Your task to perform on an android device: Go to Reddit.com Image 0: 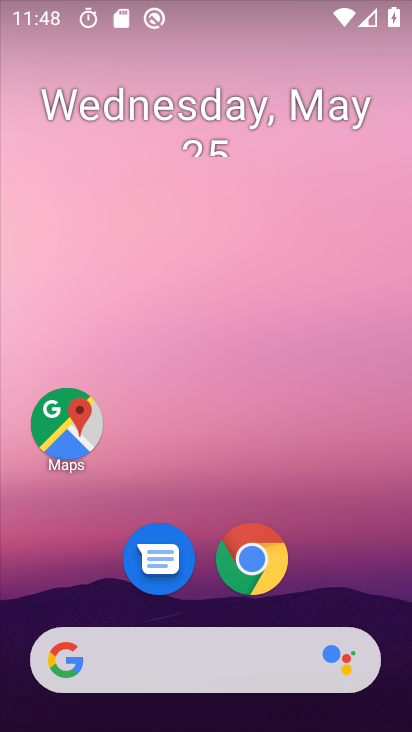
Step 0: drag from (366, 581) to (310, 136)
Your task to perform on an android device: Go to Reddit.com Image 1: 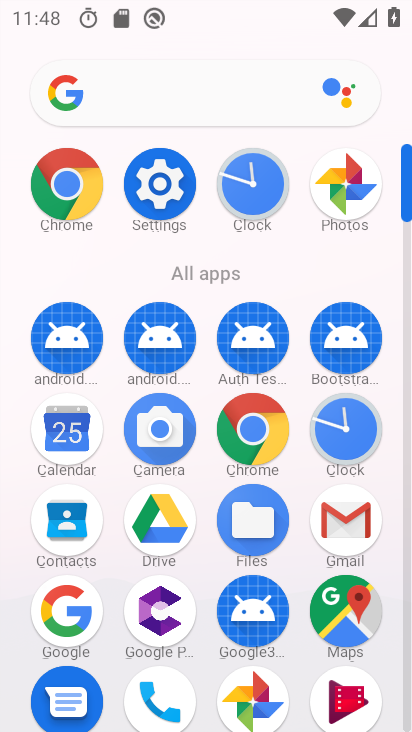
Step 1: click (258, 452)
Your task to perform on an android device: Go to Reddit.com Image 2: 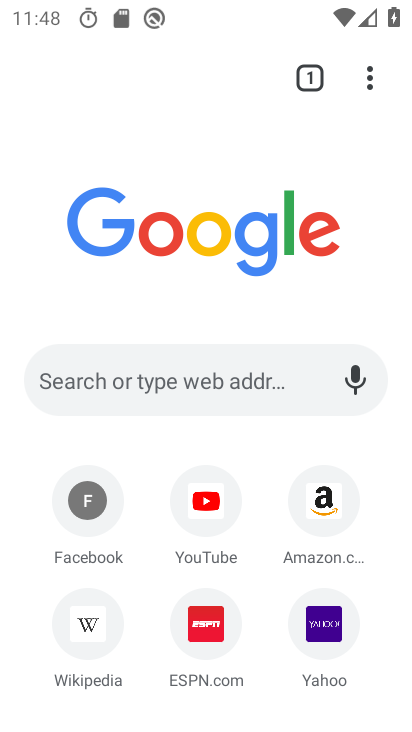
Step 2: click (262, 375)
Your task to perform on an android device: Go to Reddit.com Image 3: 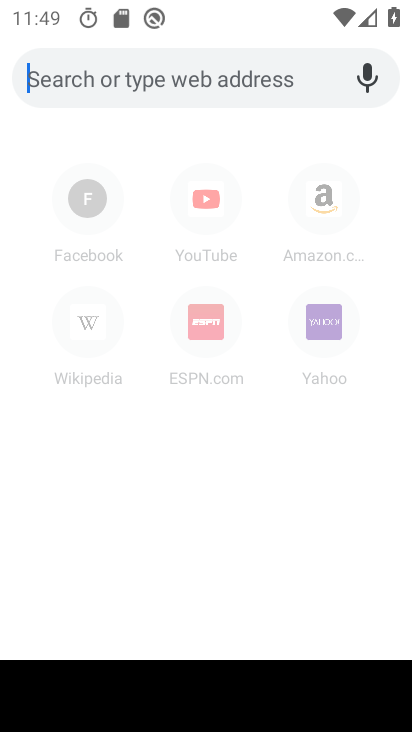
Step 3: type "reddit.com"
Your task to perform on an android device: Go to Reddit.com Image 4: 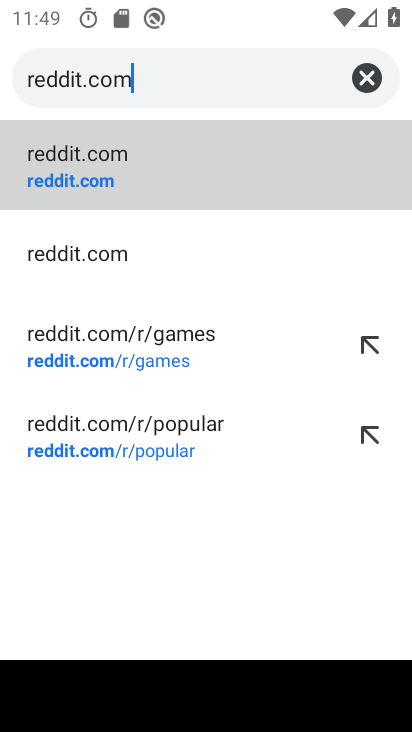
Step 4: click (117, 165)
Your task to perform on an android device: Go to Reddit.com Image 5: 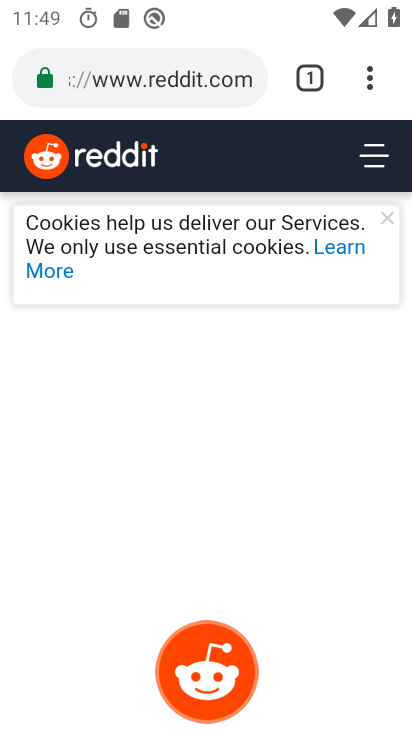
Step 5: task complete